Your task to perform on an android device: empty trash in google photos Image 0: 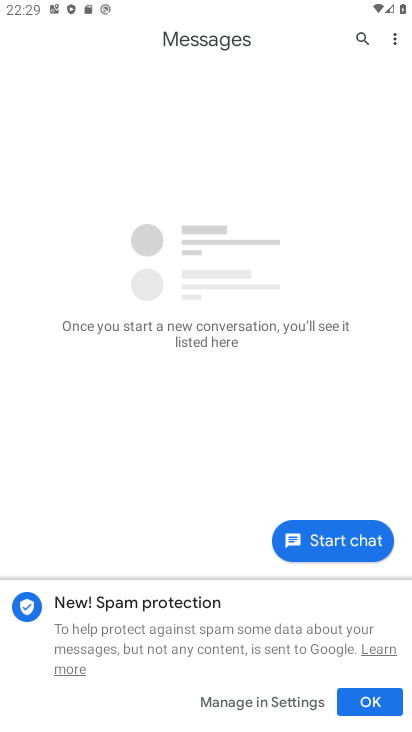
Step 0: press back button
Your task to perform on an android device: empty trash in google photos Image 1: 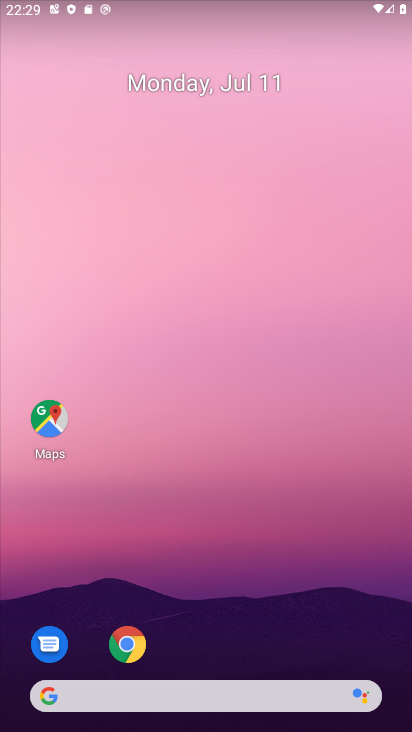
Step 1: drag from (172, 454) to (145, 111)
Your task to perform on an android device: empty trash in google photos Image 2: 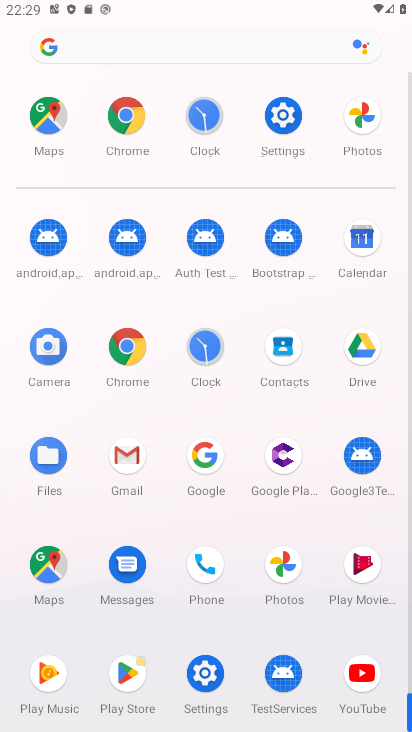
Step 2: click (271, 570)
Your task to perform on an android device: empty trash in google photos Image 3: 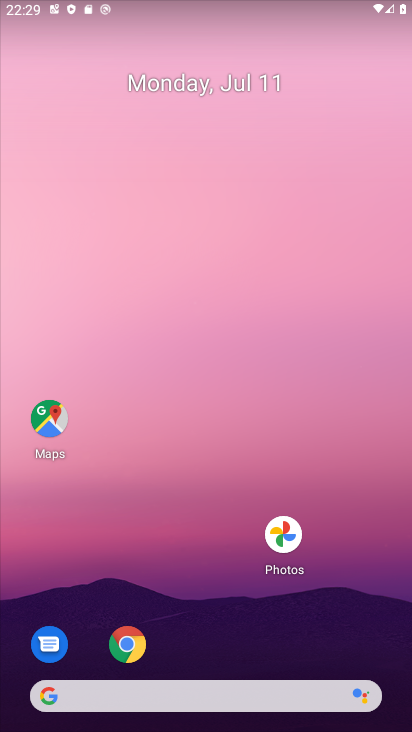
Step 3: click (280, 561)
Your task to perform on an android device: empty trash in google photos Image 4: 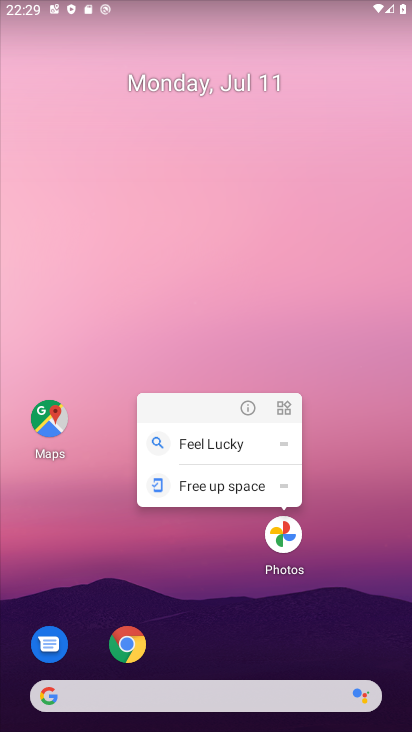
Step 4: click (278, 524)
Your task to perform on an android device: empty trash in google photos Image 5: 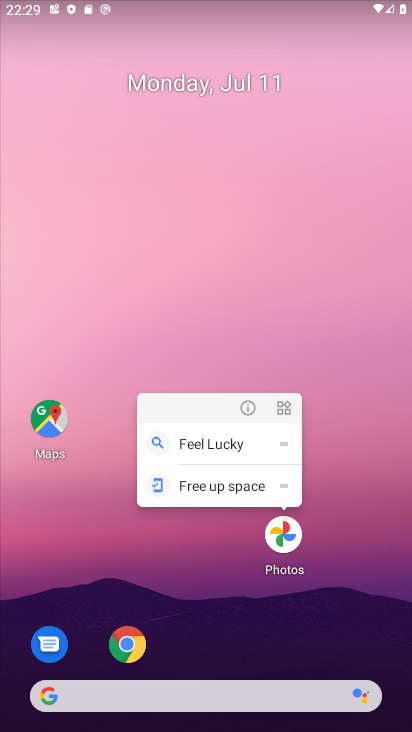
Step 5: click (280, 526)
Your task to perform on an android device: empty trash in google photos Image 6: 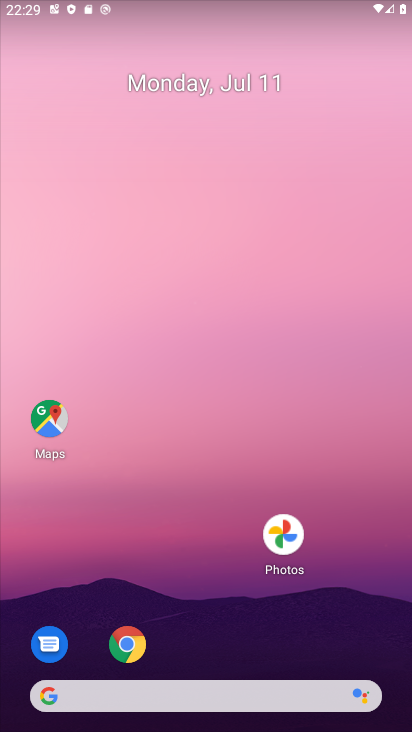
Step 6: click (280, 528)
Your task to perform on an android device: empty trash in google photos Image 7: 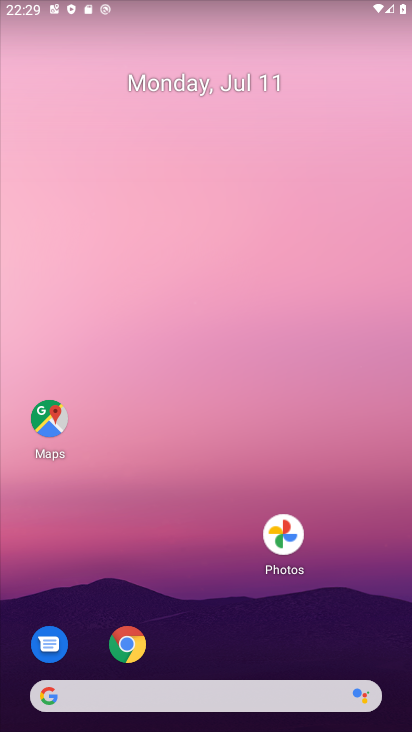
Step 7: click (275, 535)
Your task to perform on an android device: empty trash in google photos Image 8: 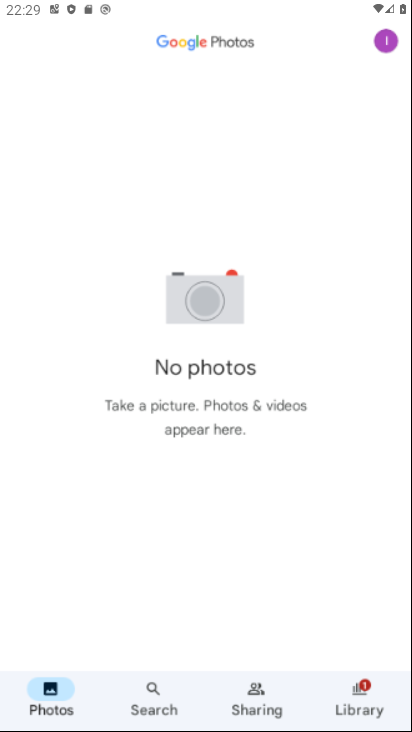
Step 8: click (275, 533)
Your task to perform on an android device: empty trash in google photos Image 9: 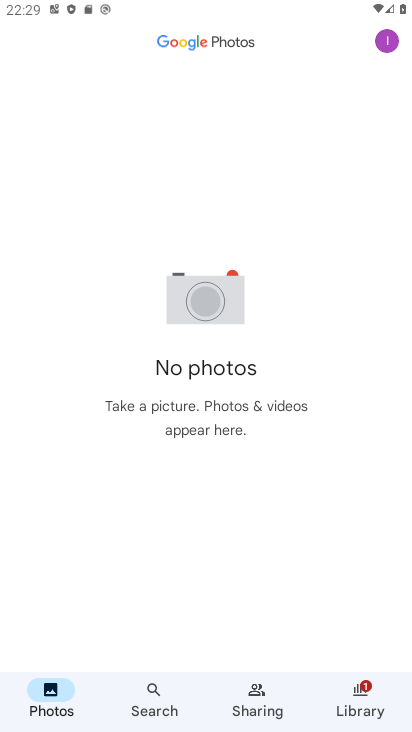
Step 9: click (49, 696)
Your task to perform on an android device: empty trash in google photos Image 10: 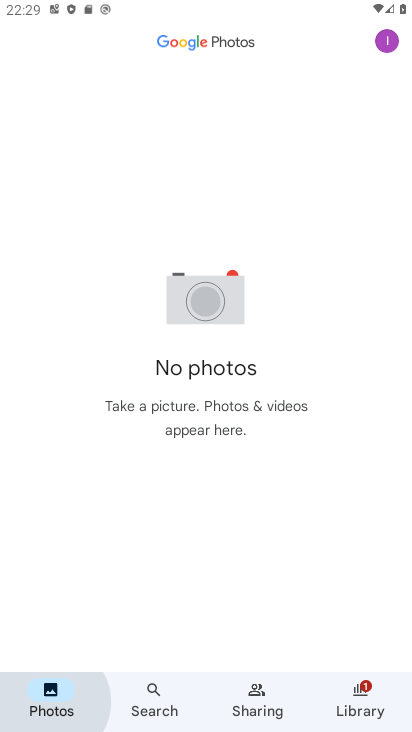
Step 10: click (46, 693)
Your task to perform on an android device: empty trash in google photos Image 11: 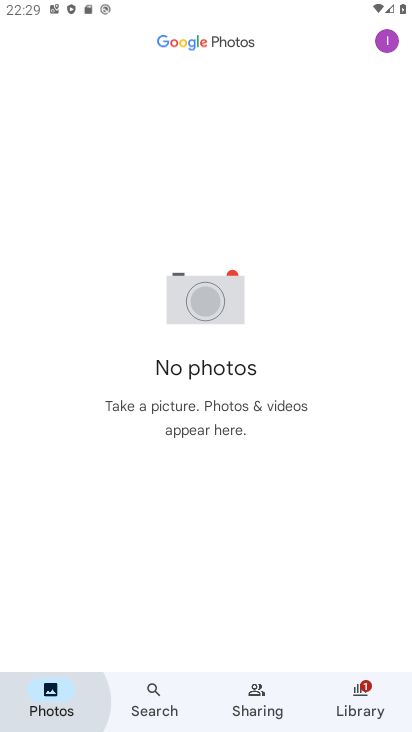
Step 11: click (39, 692)
Your task to perform on an android device: empty trash in google photos Image 12: 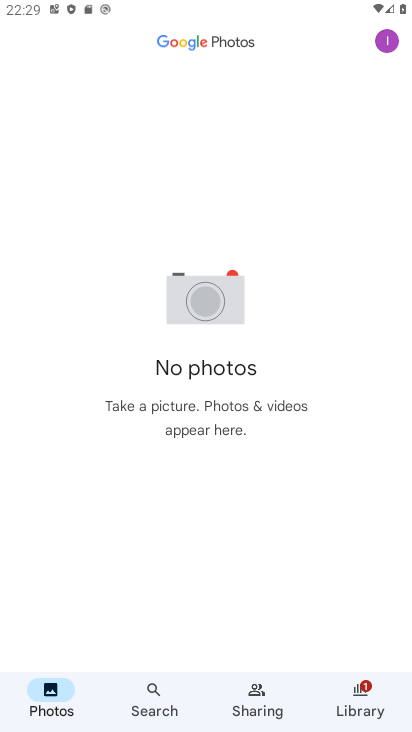
Step 12: click (33, 685)
Your task to perform on an android device: empty trash in google photos Image 13: 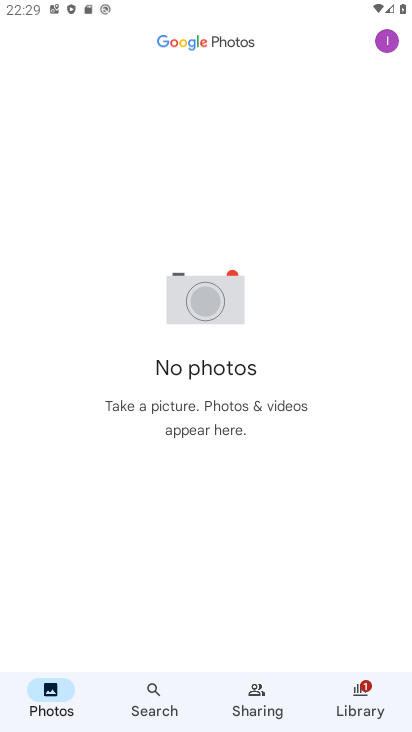
Step 13: click (98, 194)
Your task to perform on an android device: empty trash in google photos Image 14: 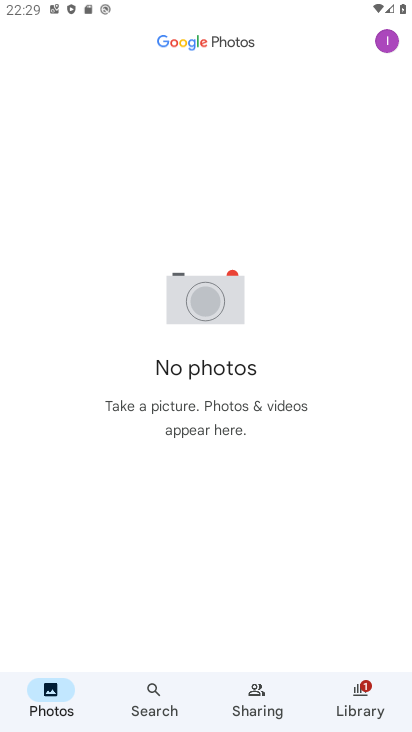
Step 14: click (108, 204)
Your task to perform on an android device: empty trash in google photos Image 15: 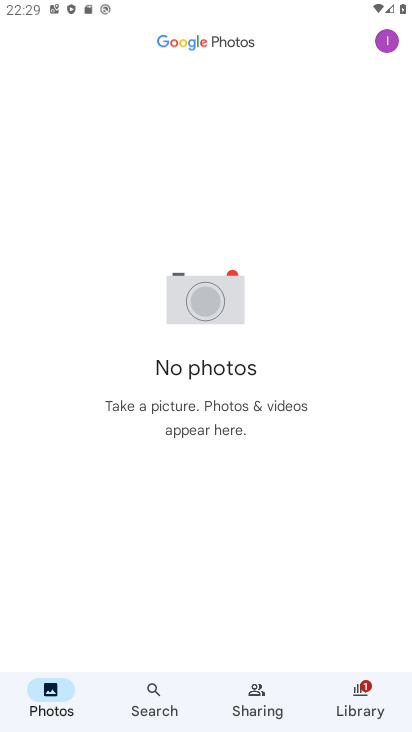
Step 15: click (116, 206)
Your task to perform on an android device: empty trash in google photos Image 16: 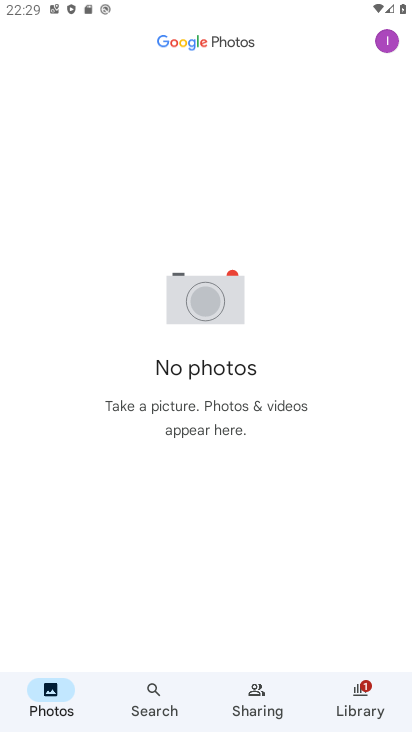
Step 16: task complete